Your task to perform on an android device: Open network settings Image 0: 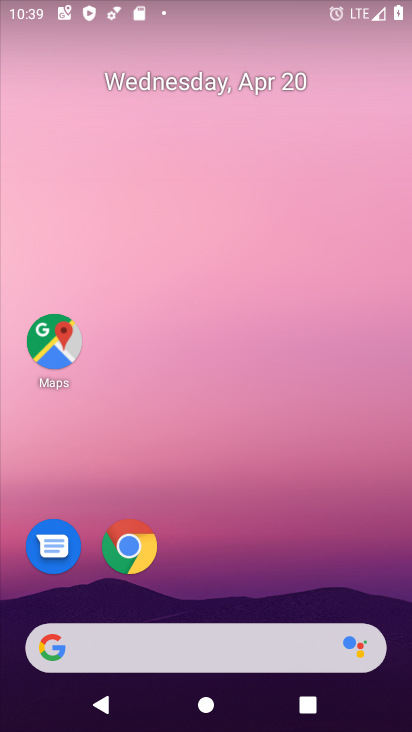
Step 0: drag from (226, 522) to (230, 205)
Your task to perform on an android device: Open network settings Image 1: 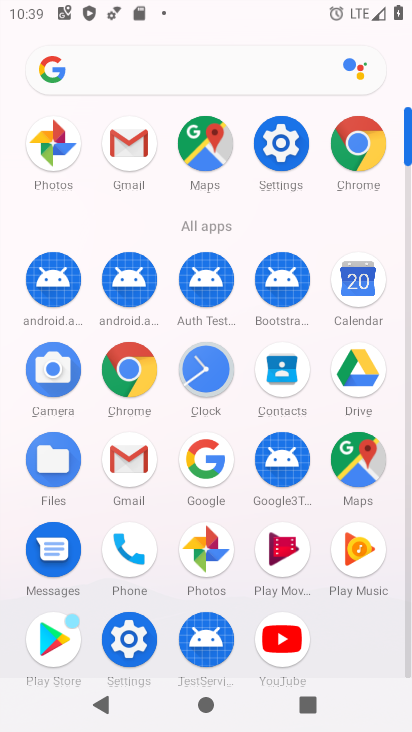
Step 1: click (136, 621)
Your task to perform on an android device: Open network settings Image 2: 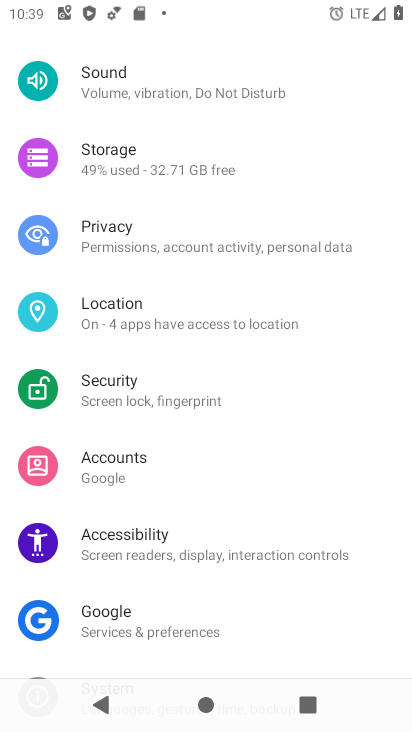
Step 2: drag from (159, 126) to (160, 568)
Your task to perform on an android device: Open network settings Image 3: 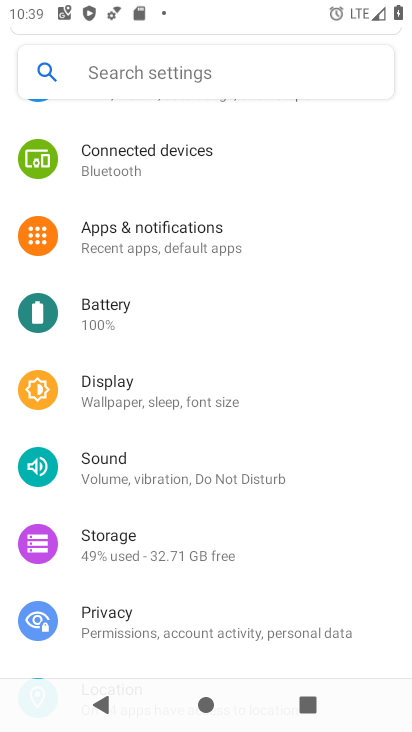
Step 3: drag from (182, 182) to (187, 485)
Your task to perform on an android device: Open network settings Image 4: 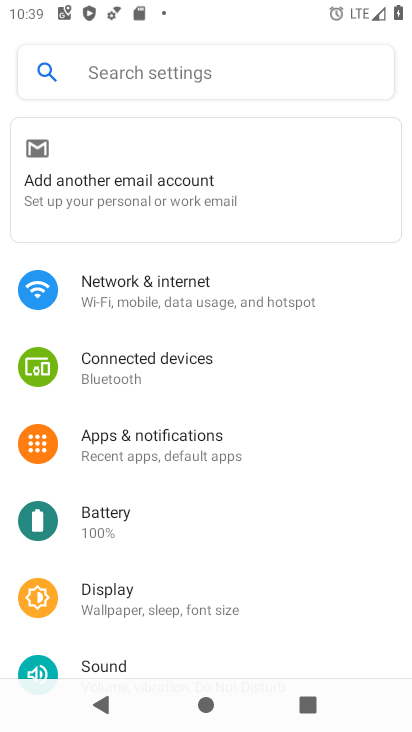
Step 4: click (120, 300)
Your task to perform on an android device: Open network settings Image 5: 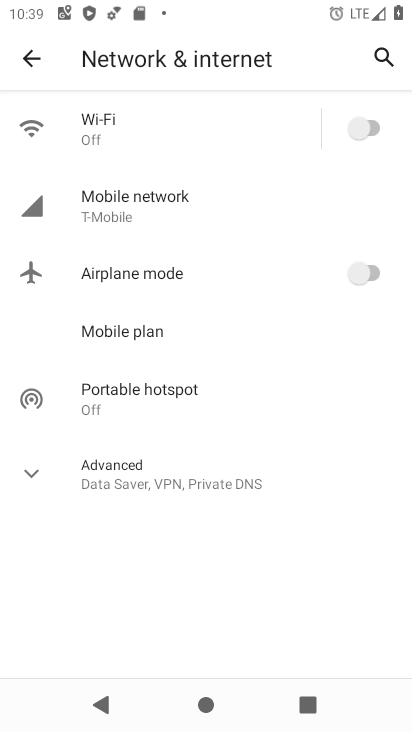
Step 5: click (116, 208)
Your task to perform on an android device: Open network settings Image 6: 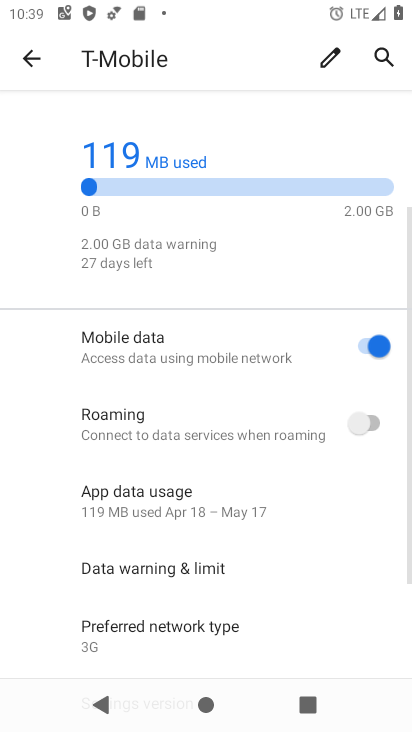
Step 6: task complete